Your task to perform on an android device: What's on my calendar today? Image 0: 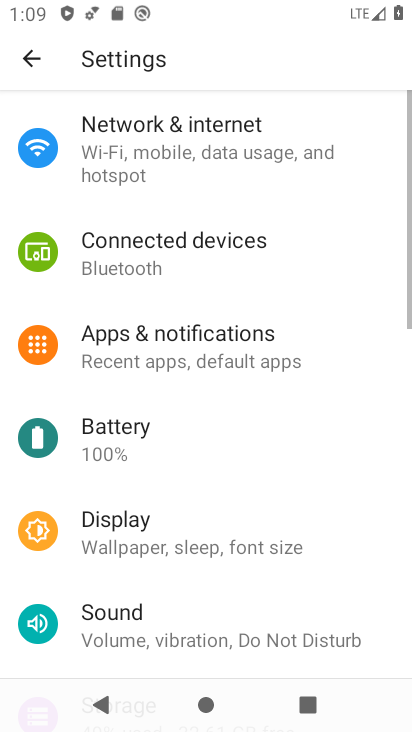
Step 0: press home button
Your task to perform on an android device: What's on my calendar today? Image 1: 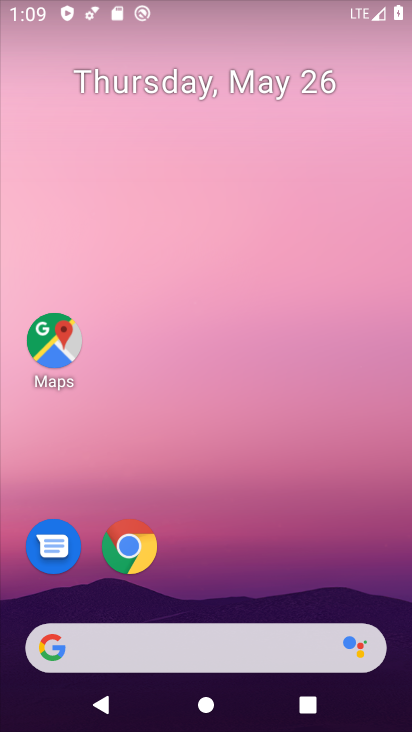
Step 1: click (198, 80)
Your task to perform on an android device: What's on my calendar today? Image 2: 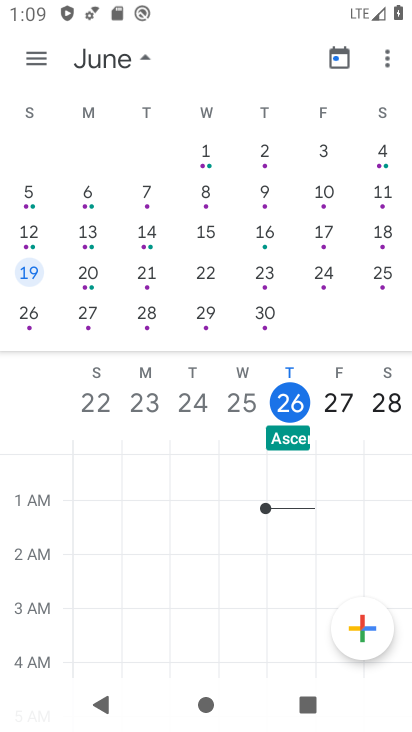
Step 2: task complete